Your task to perform on an android device: Go to sound settings Image 0: 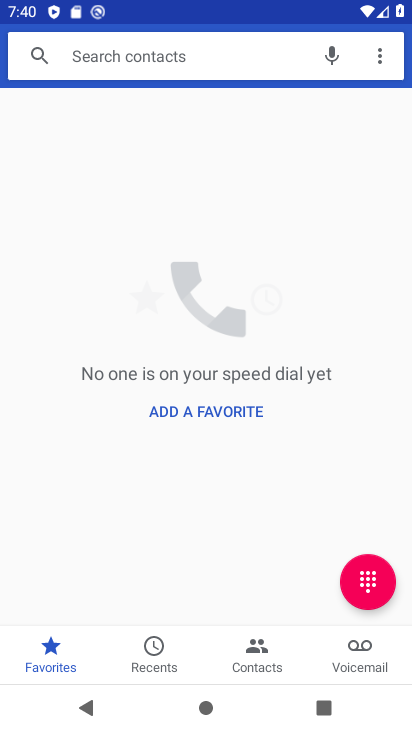
Step 0: press home button
Your task to perform on an android device: Go to sound settings Image 1: 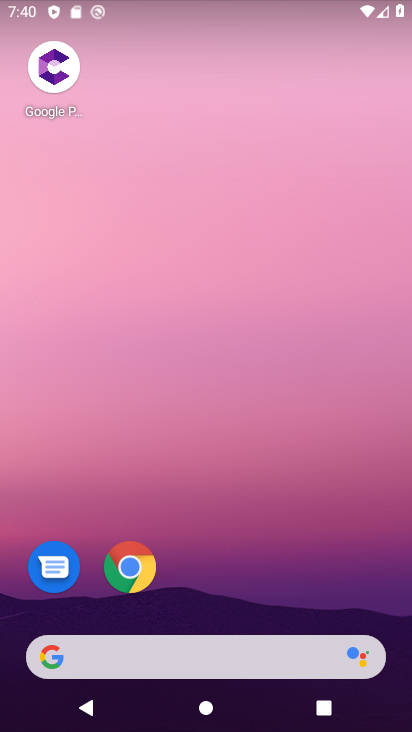
Step 1: drag from (218, 621) to (250, 132)
Your task to perform on an android device: Go to sound settings Image 2: 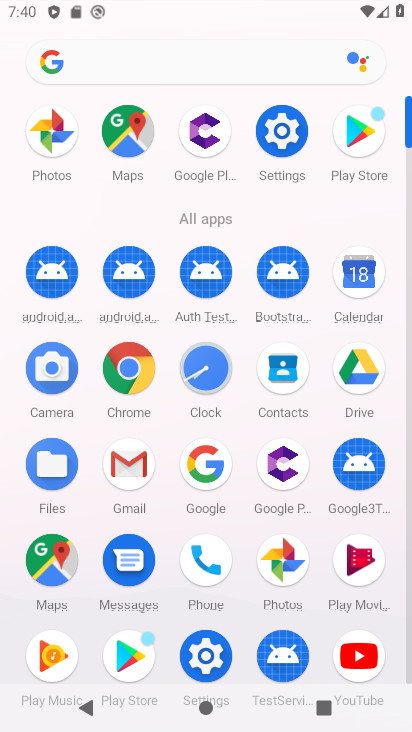
Step 2: click (273, 143)
Your task to perform on an android device: Go to sound settings Image 3: 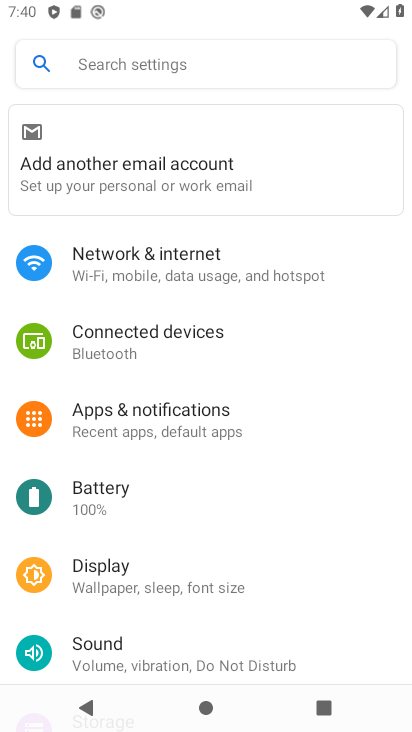
Step 3: click (136, 652)
Your task to perform on an android device: Go to sound settings Image 4: 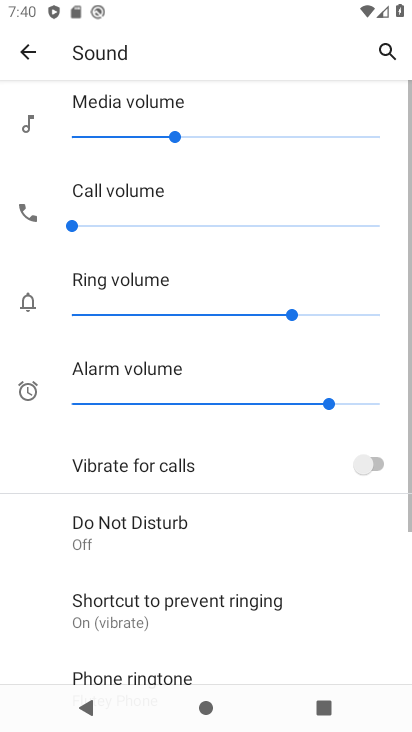
Step 4: drag from (136, 652) to (113, 177)
Your task to perform on an android device: Go to sound settings Image 5: 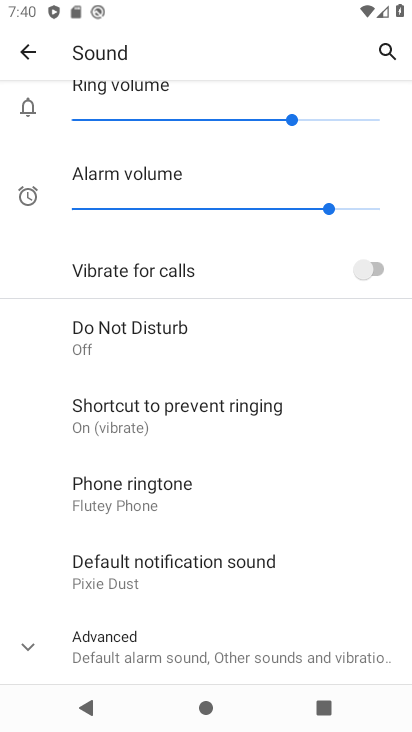
Step 5: click (107, 645)
Your task to perform on an android device: Go to sound settings Image 6: 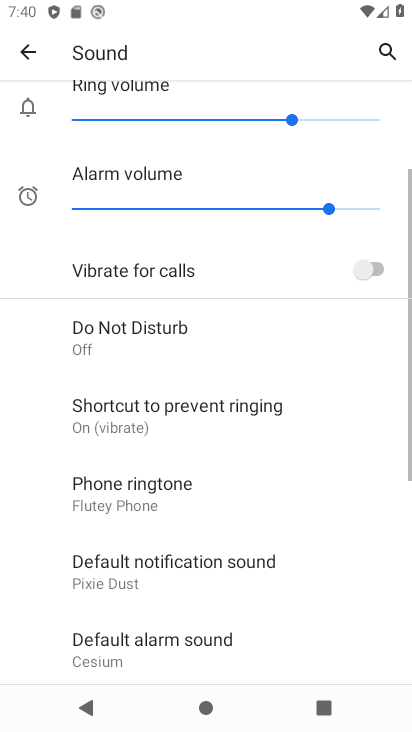
Step 6: task complete